Your task to perform on an android device: Go to accessibility settings Image 0: 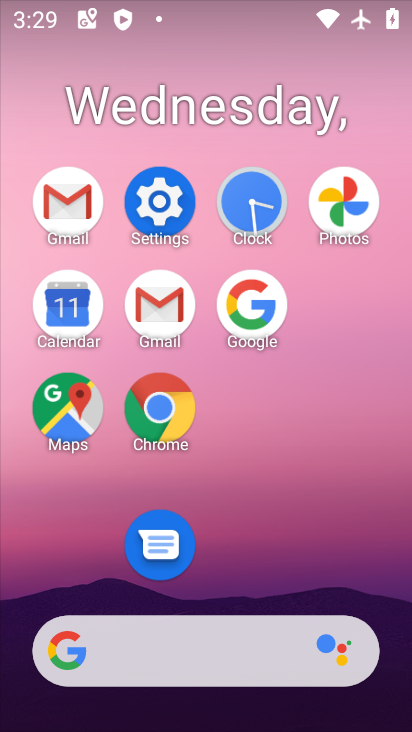
Step 0: click (153, 210)
Your task to perform on an android device: Go to accessibility settings Image 1: 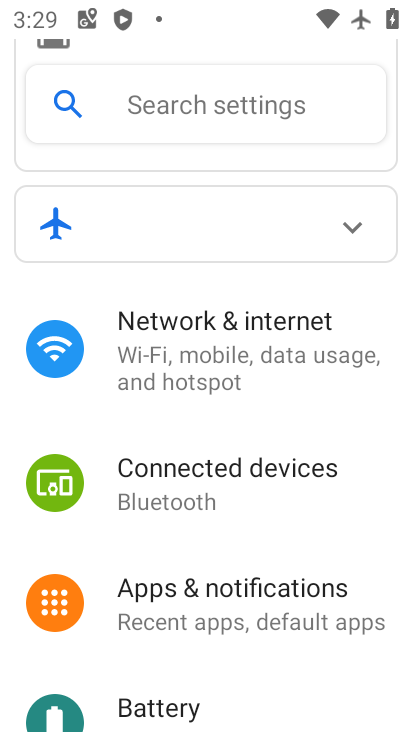
Step 1: drag from (286, 688) to (258, 112)
Your task to perform on an android device: Go to accessibility settings Image 2: 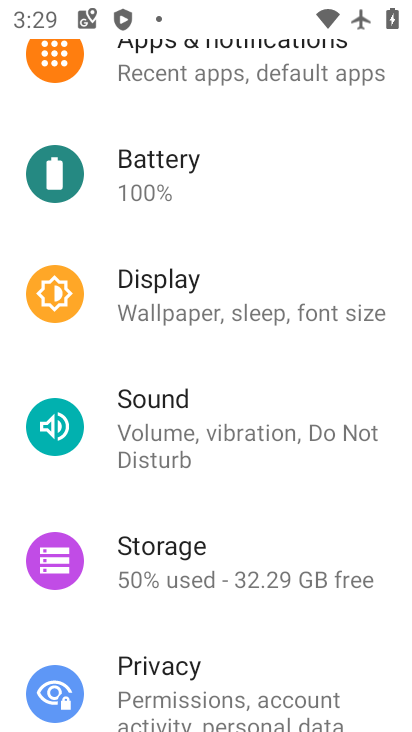
Step 2: drag from (274, 654) to (295, 102)
Your task to perform on an android device: Go to accessibility settings Image 3: 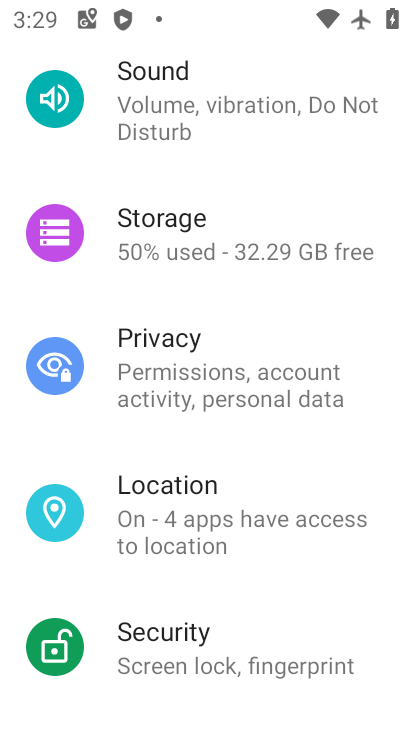
Step 3: drag from (244, 627) to (263, 113)
Your task to perform on an android device: Go to accessibility settings Image 4: 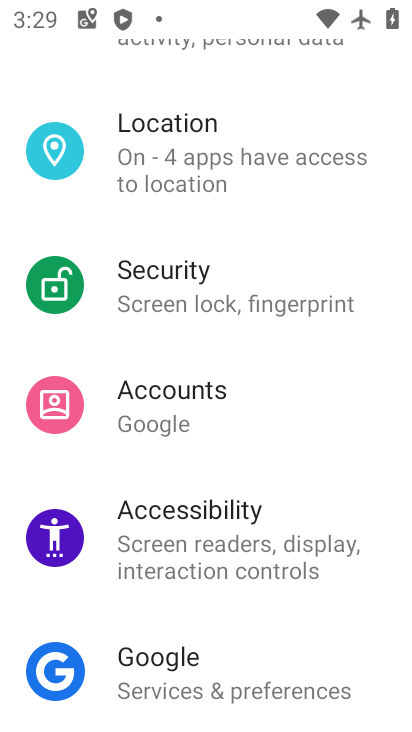
Step 4: click (232, 527)
Your task to perform on an android device: Go to accessibility settings Image 5: 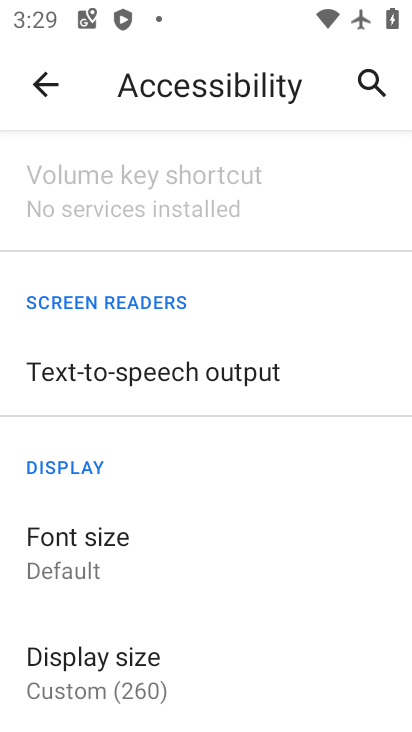
Step 5: task complete